Your task to perform on an android device: Go to Android settings Image 0: 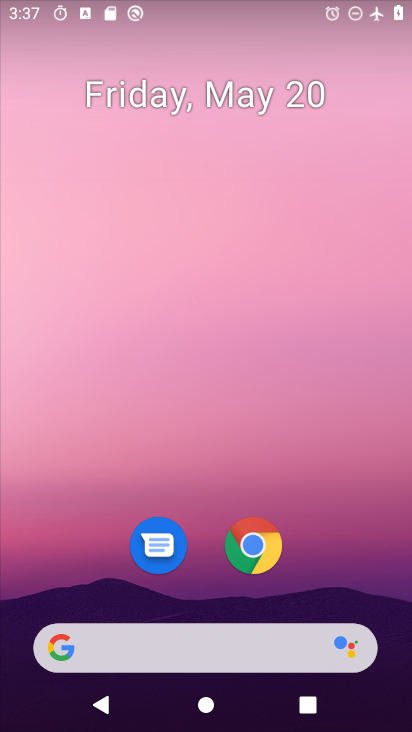
Step 0: drag from (324, 652) to (327, 7)
Your task to perform on an android device: Go to Android settings Image 1: 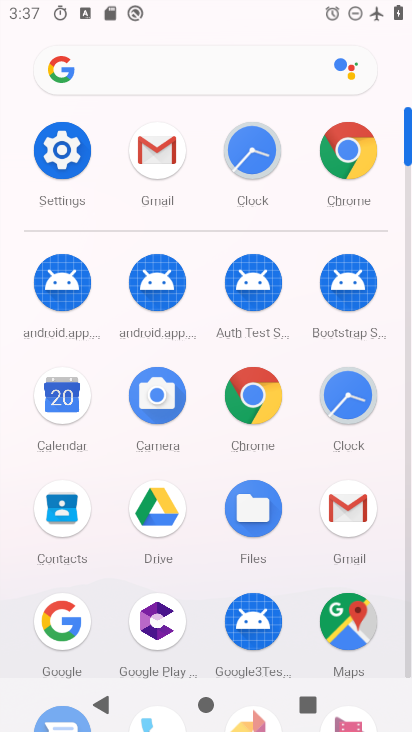
Step 1: click (57, 137)
Your task to perform on an android device: Go to Android settings Image 2: 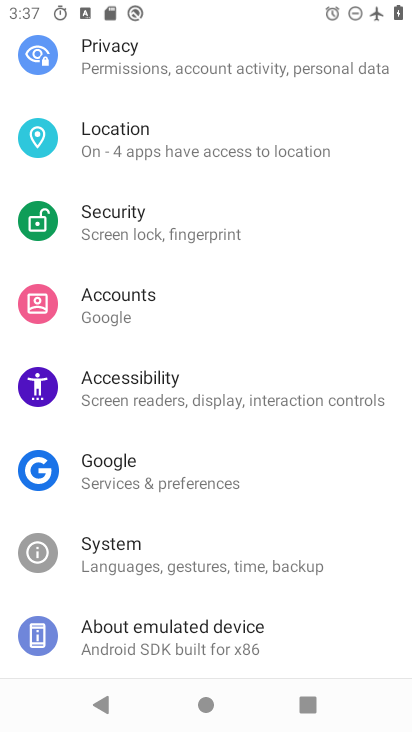
Step 2: drag from (203, 224) to (177, 724)
Your task to perform on an android device: Go to Android settings Image 3: 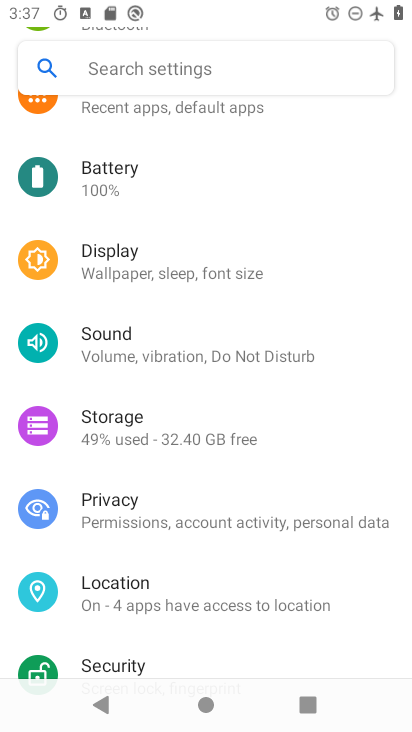
Step 3: drag from (235, 630) to (289, 47)
Your task to perform on an android device: Go to Android settings Image 4: 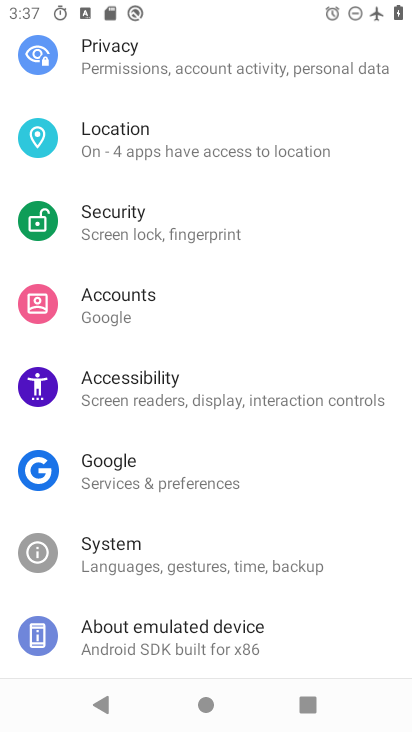
Step 4: drag from (332, 579) to (338, 386)
Your task to perform on an android device: Go to Android settings Image 5: 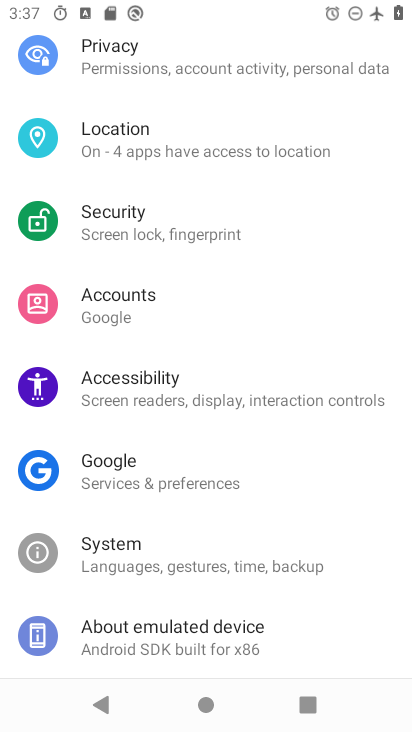
Step 5: click (272, 640)
Your task to perform on an android device: Go to Android settings Image 6: 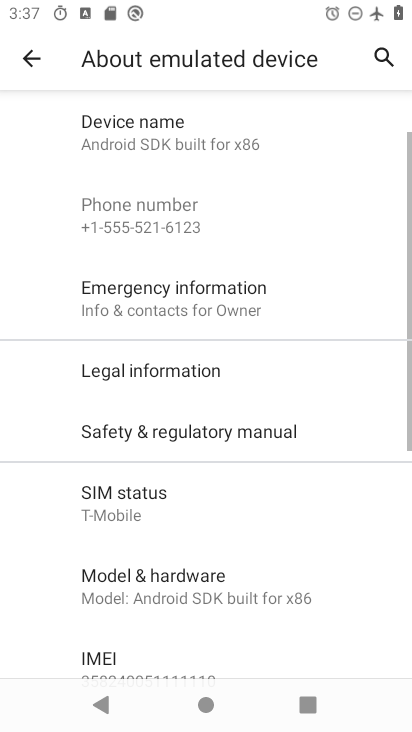
Step 6: drag from (272, 640) to (309, 297)
Your task to perform on an android device: Go to Android settings Image 7: 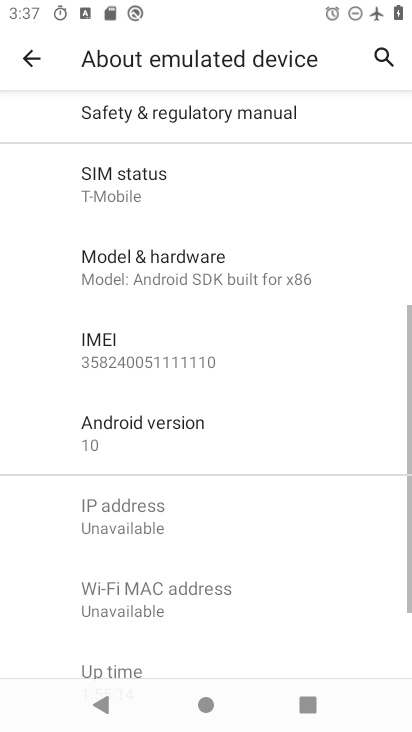
Step 7: click (200, 440)
Your task to perform on an android device: Go to Android settings Image 8: 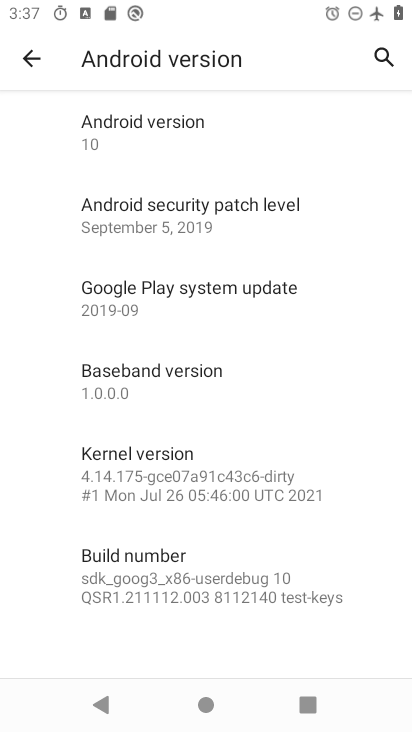
Step 8: task complete